Your task to perform on an android device: Play the last video I watched on Youtube Image 0: 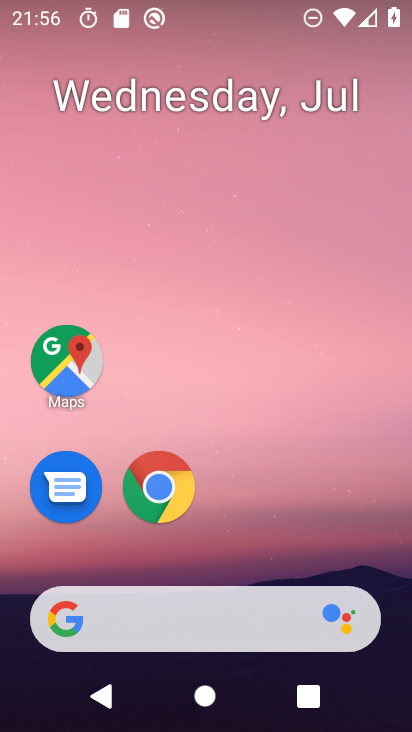
Step 0: drag from (371, 538) to (379, 120)
Your task to perform on an android device: Play the last video I watched on Youtube Image 1: 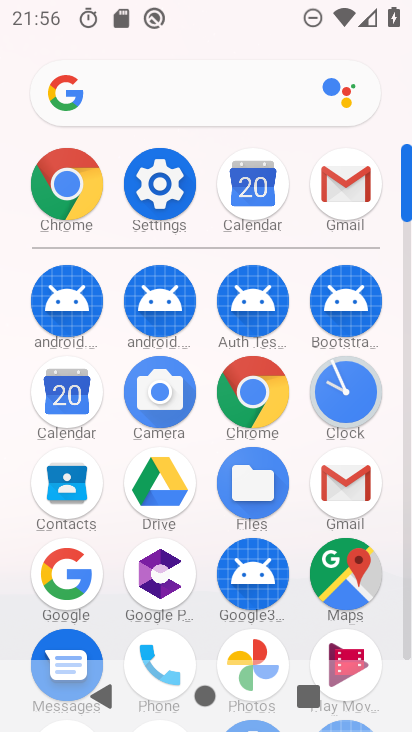
Step 1: drag from (396, 609) to (408, 334)
Your task to perform on an android device: Play the last video I watched on Youtube Image 2: 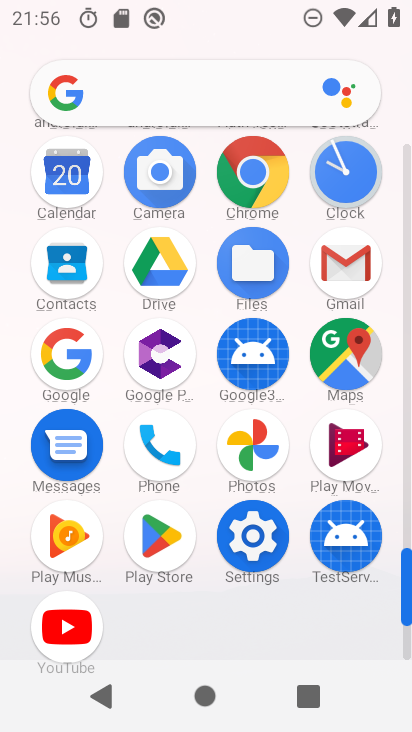
Step 2: click (79, 628)
Your task to perform on an android device: Play the last video I watched on Youtube Image 3: 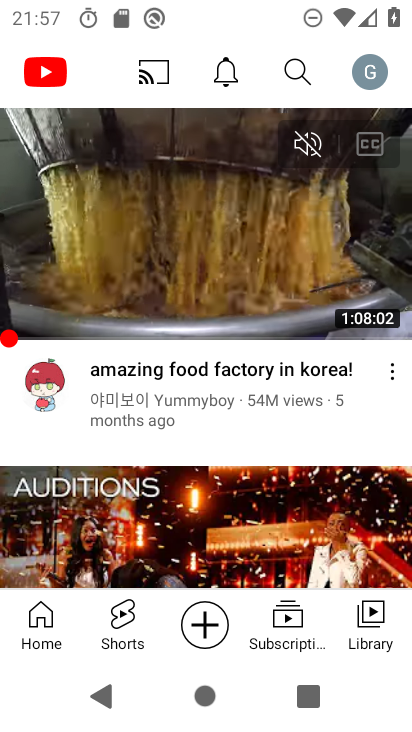
Step 3: click (371, 621)
Your task to perform on an android device: Play the last video I watched on Youtube Image 4: 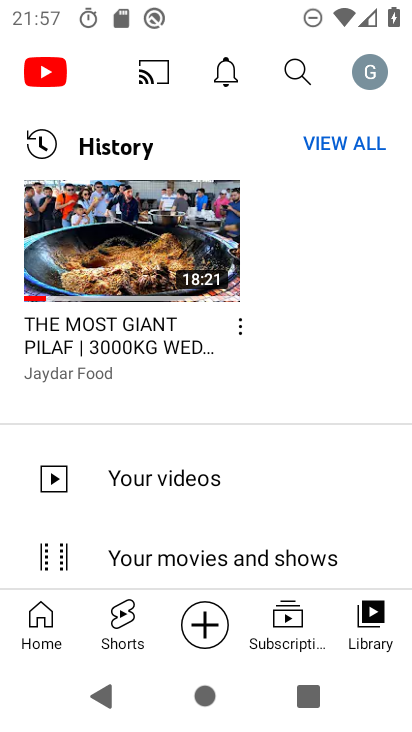
Step 4: click (101, 258)
Your task to perform on an android device: Play the last video I watched on Youtube Image 5: 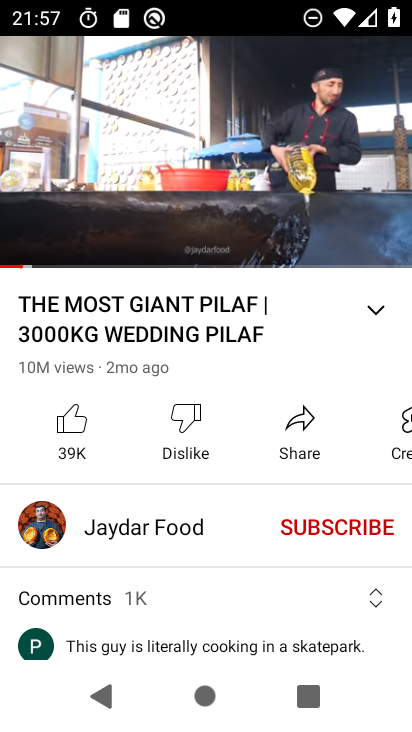
Step 5: task complete